Your task to perform on an android device: toggle location history Image 0: 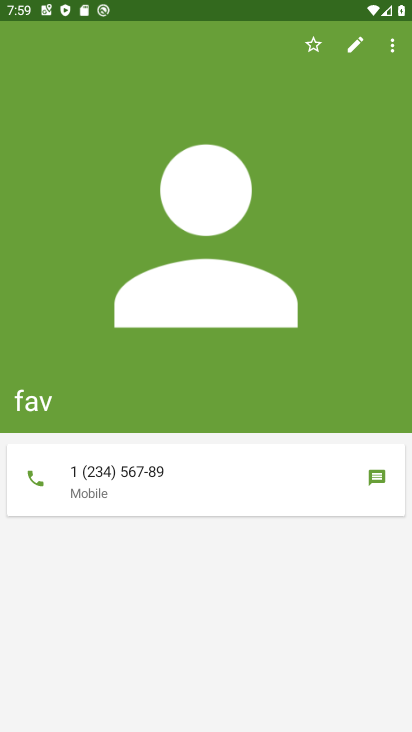
Step 0: press home button
Your task to perform on an android device: toggle location history Image 1: 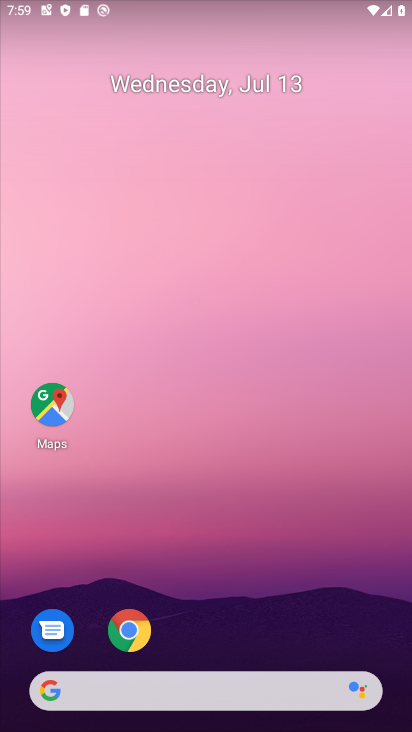
Step 1: drag from (364, 611) to (367, 39)
Your task to perform on an android device: toggle location history Image 2: 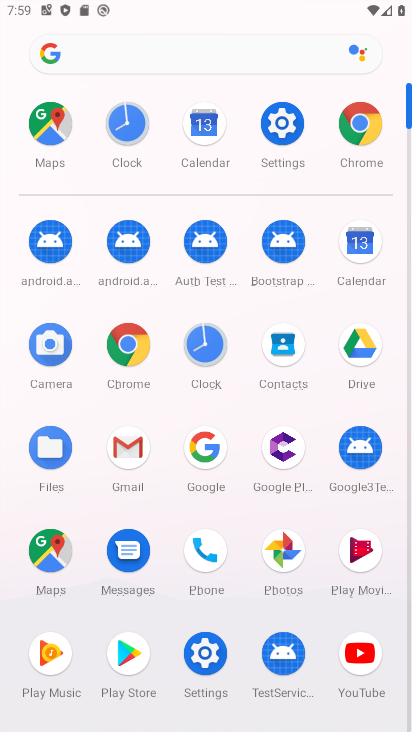
Step 2: click (284, 134)
Your task to perform on an android device: toggle location history Image 3: 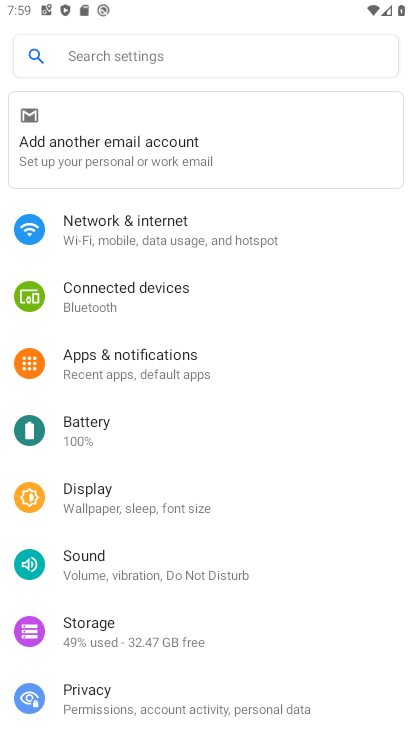
Step 3: drag from (335, 464) to (347, 394)
Your task to perform on an android device: toggle location history Image 4: 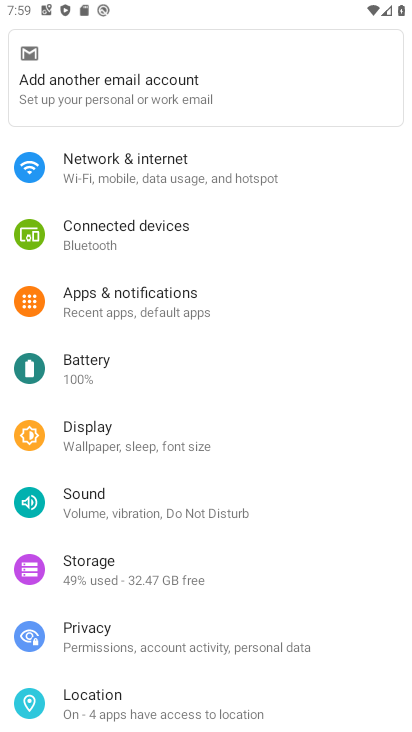
Step 4: drag from (347, 487) to (340, 391)
Your task to perform on an android device: toggle location history Image 5: 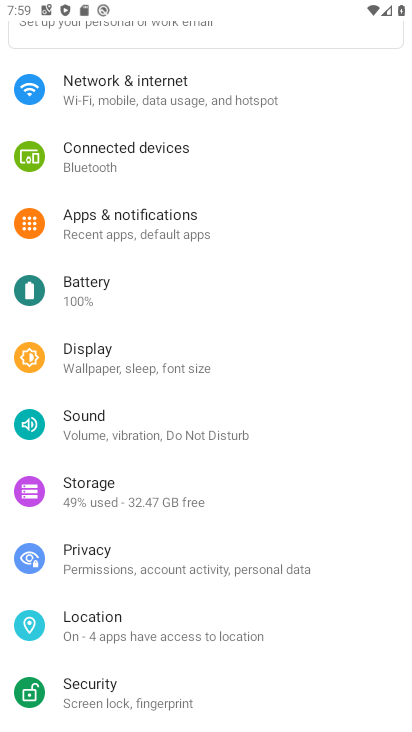
Step 5: drag from (348, 481) to (338, 380)
Your task to perform on an android device: toggle location history Image 6: 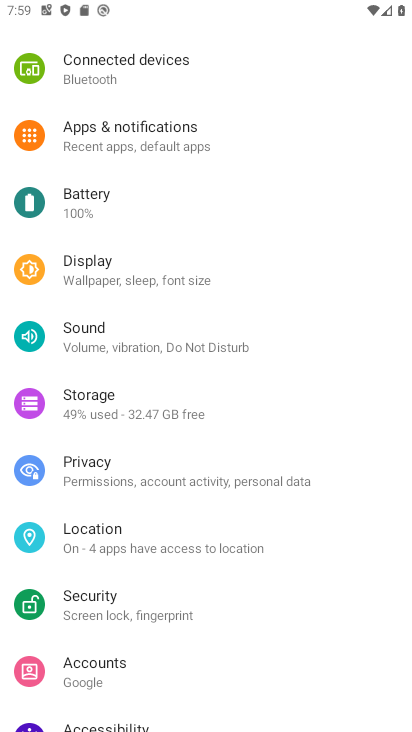
Step 6: drag from (354, 466) to (355, 352)
Your task to perform on an android device: toggle location history Image 7: 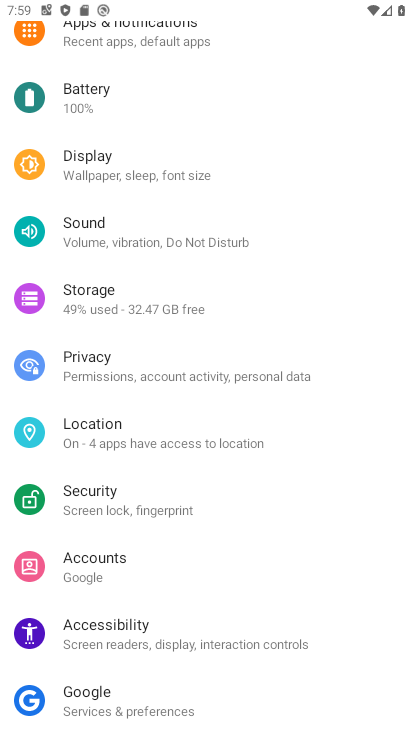
Step 7: drag from (348, 480) to (355, 313)
Your task to perform on an android device: toggle location history Image 8: 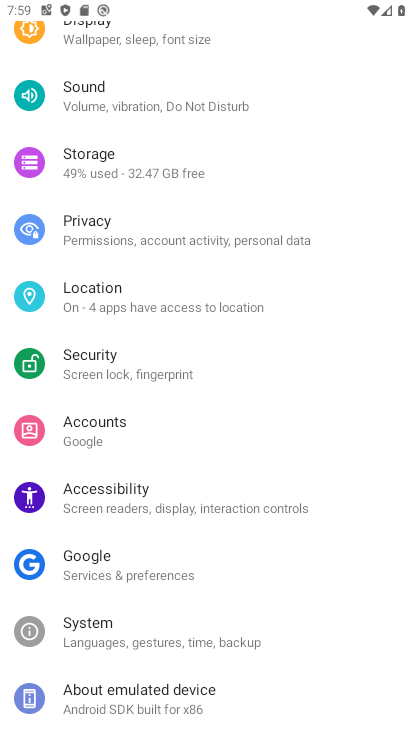
Step 8: drag from (351, 427) to (339, 302)
Your task to perform on an android device: toggle location history Image 9: 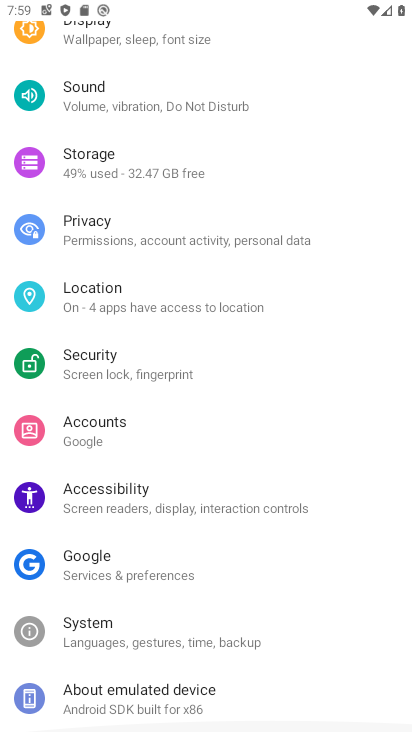
Step 9: click (262, 287)
Your task to perform on an android device: toggle location history Image 10: 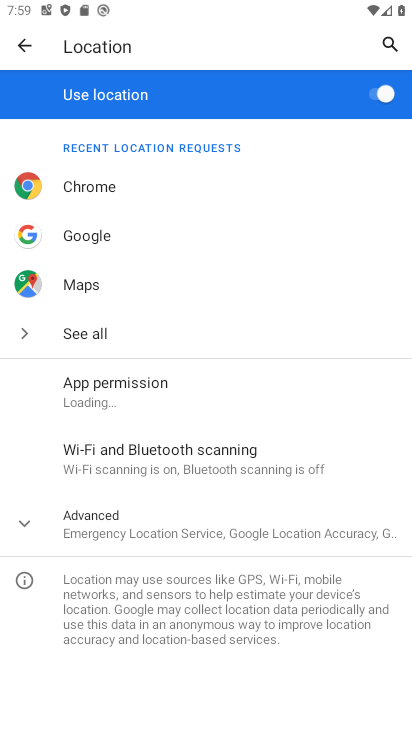
Step 10: click (284, 526)
Your task to perform on an android device: toggle location history Image 11: 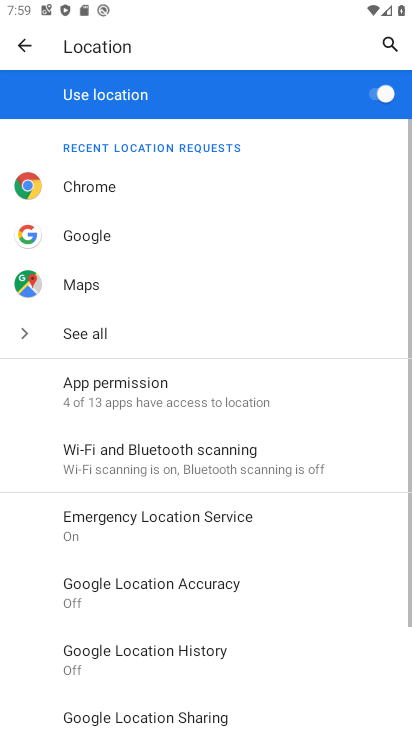
Step 11: drag from (303, 557) to (319, 416)
Your task to perform on an android device: toggle location history Image 12: 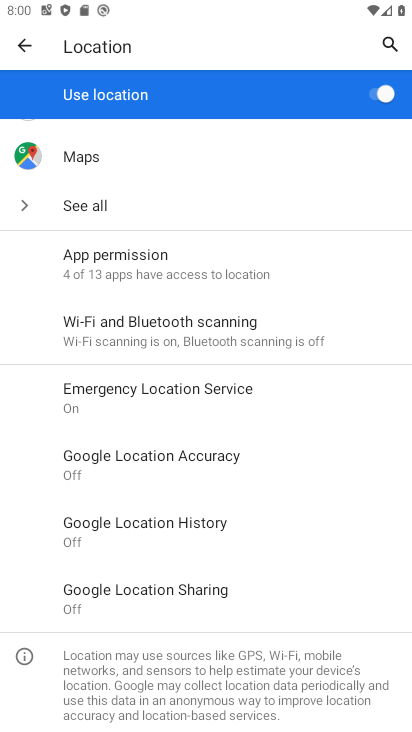
Step 12: click (217, 526)
Your task to perform on an android device: toggle location history Image 13: 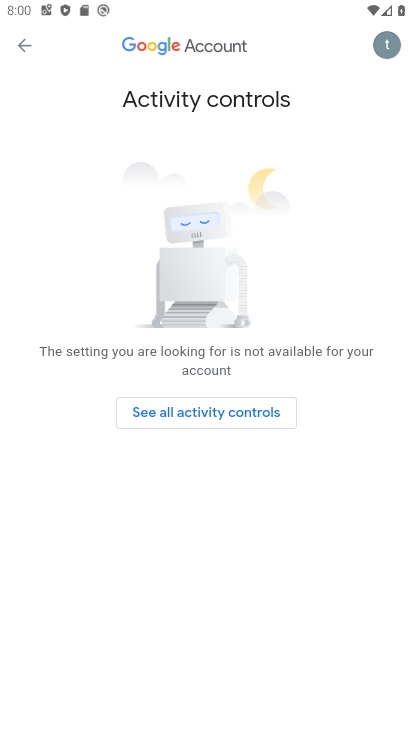
Step 13: click (206, 412)
Your task to perform on an android device: toggle location history Image 14: 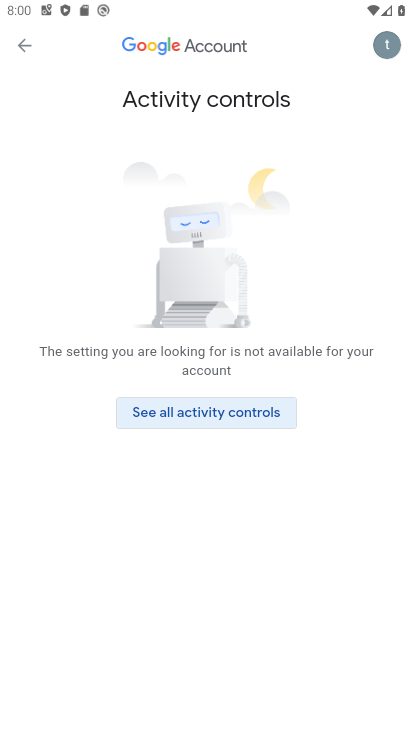
Step 14: click (255, 417)
Your task to perform on an android device: toggle location history Image 15: 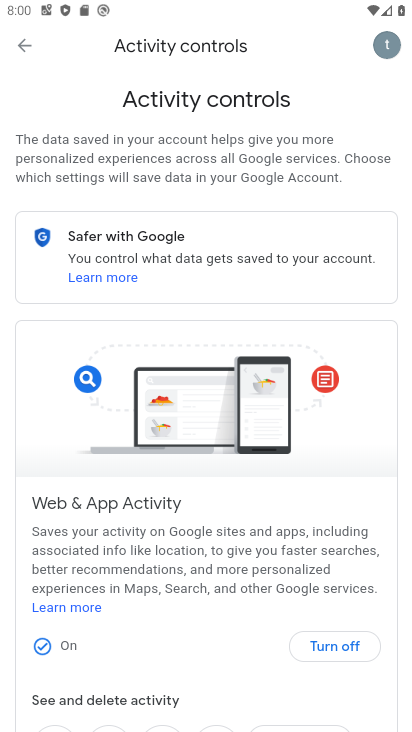
Step 15: drag from (247, 551) to (247, 316)
Your task to perform on an android device: toggle location history Image 16: 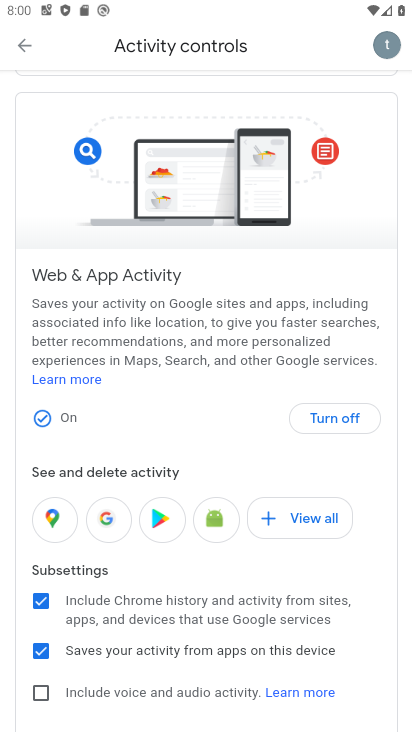
Step 16: click (341, 414)
Your task to perform on an android device: toggle location history Image 17: 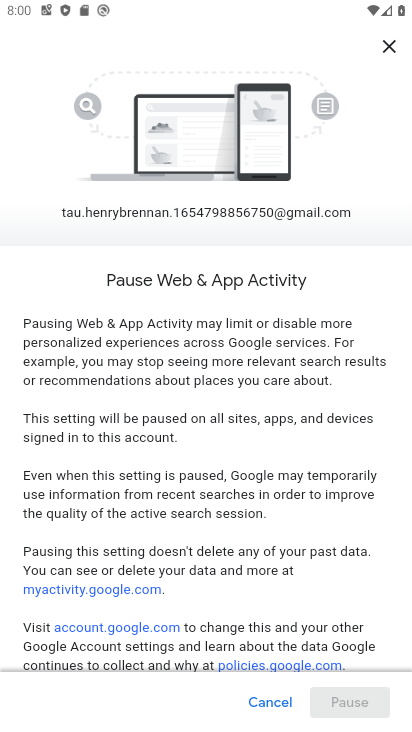
Step 17: drag from (236, 519) to (238, 432)
Your task to perform on an android device: toggle location history Image 18: 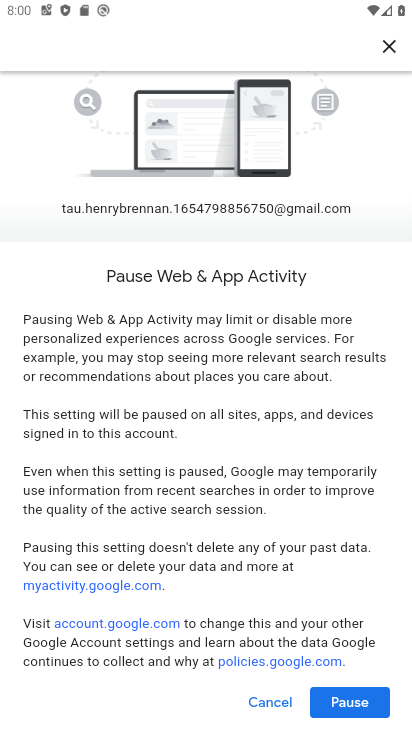
Step 18: click (347, 706)
Your task to perform on an android device: toggle location history Image 19: 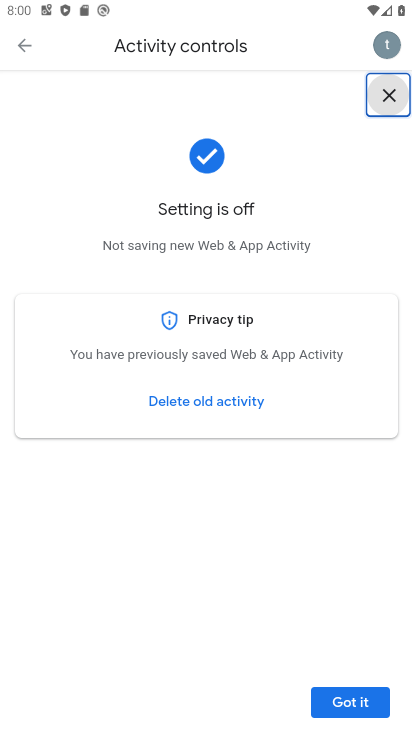
Step 19: task complete